Your task to perform on an android device: Open the calendar app, open the side menu, and click the "Day" option Image 0: 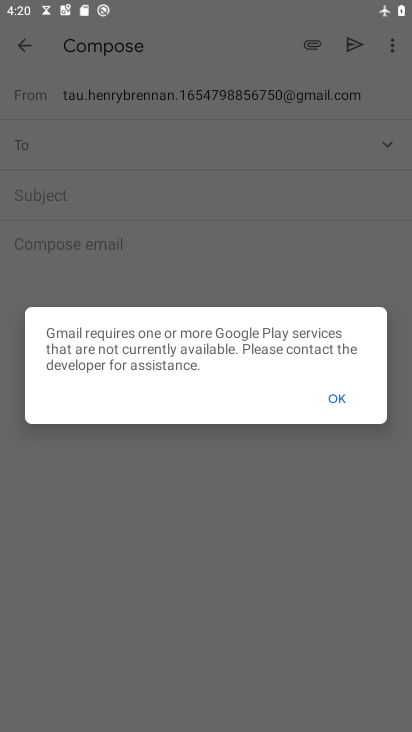
Step 0: click (331, 401)
Your task to perform on an android device: Open the calendar app, open the side menu, and click the "Day" option Image 1: 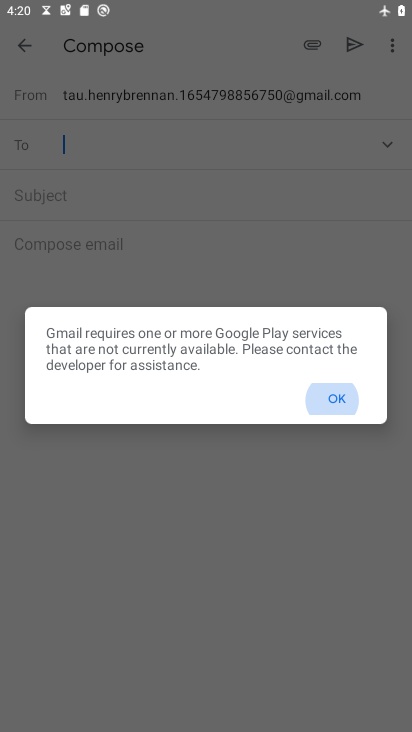
Step 1: click (332, 401)
Your task to perform on an android device: Open the calendar app, open the side menu, and click the "Day" option Image 2: 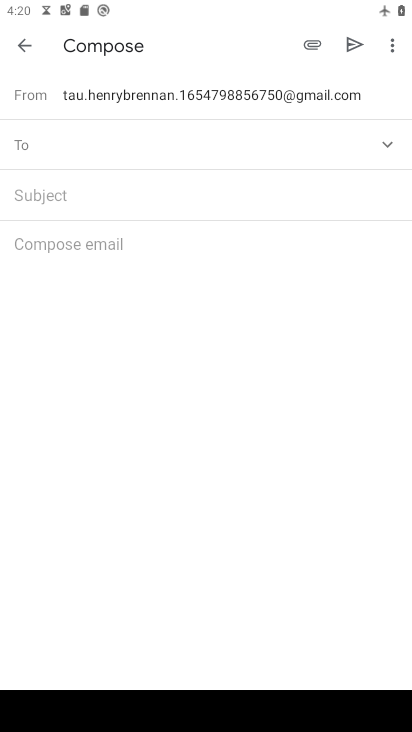
Step 2: click (25, 40)
Your task to perform on an android device: Open the calendar app, open the side menu, and click the "Day" option Image 3: 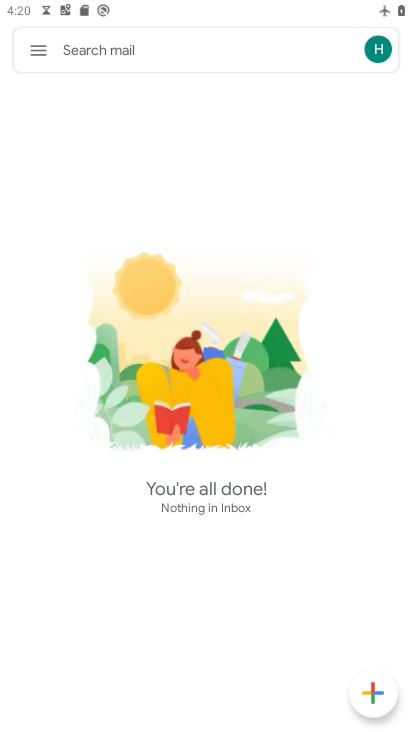
Step 3: press back button
Your task to perform on an android device: Open the calendar app, open the side menu, and click the "Day" option Image 4: 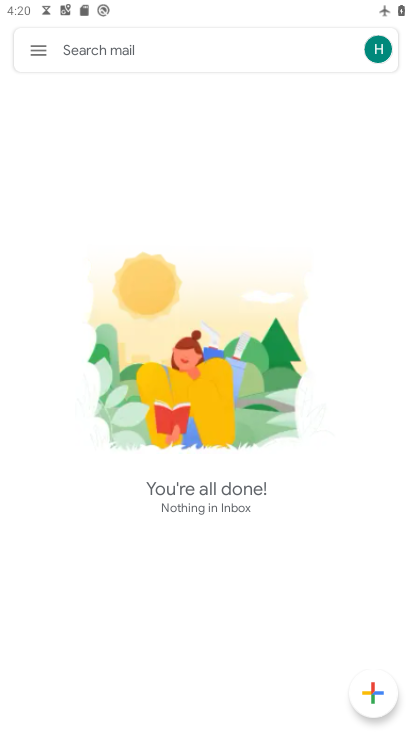
Step 4: press back button
Your task to perform on an android device: Open the calendar app, open the side menu, and click the "Day" option Image 5: 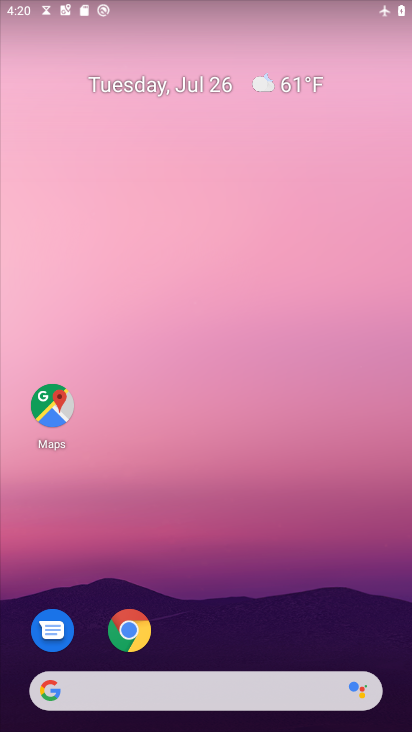
Step 5: drag from (254, 579) to (243, 133)
Your task to perform on an android device: Open the calendar app, open the side menu, and click the "Day" option Image 6: 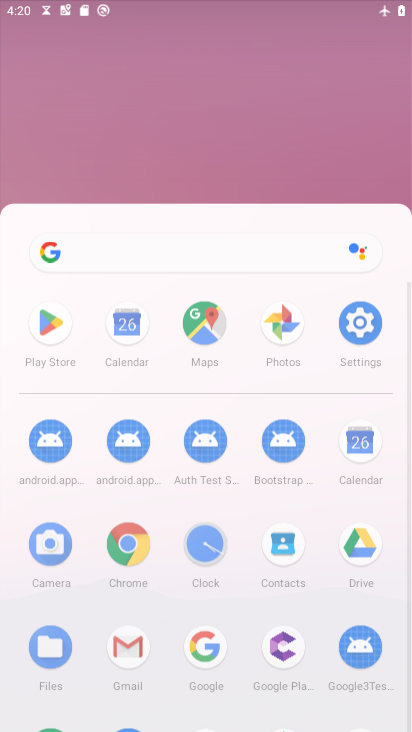
Step 6: drag from (252, 490) to (252, 114)
Your task to perform on an android device: Open the calendar app, open the side menu, and click the "Day" option Image 7: 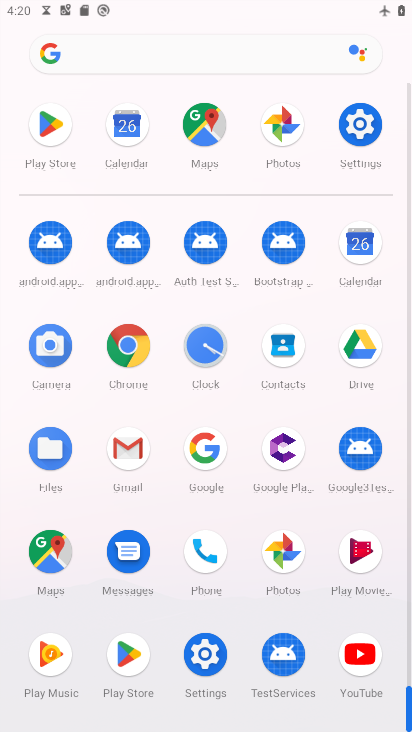
Step 7: click (199, 356)
Your task to perform on an android device: Open the calendar app, open the side menu, and click the "Day" option Image 8: 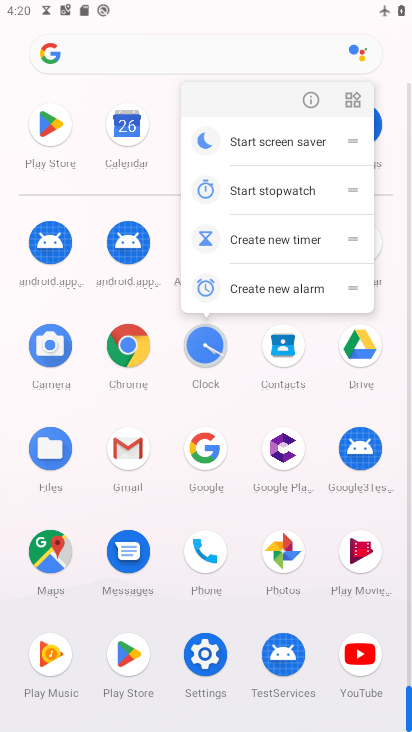
Step 8: click (402, 294)
Your task to perform on an android device: Open the calendar app, open the side menu, and click the "Day" option Image 9: 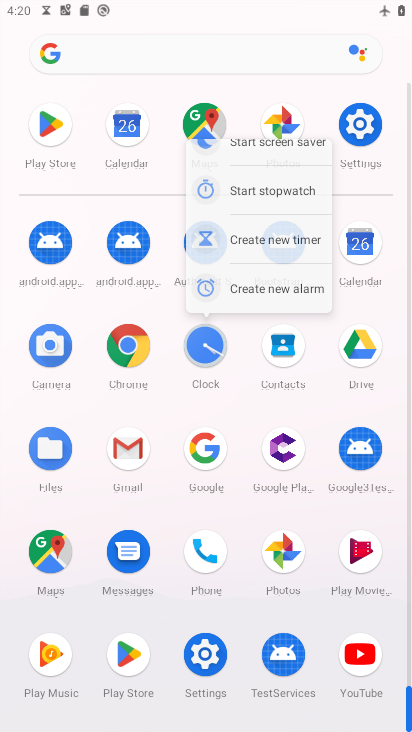
Step 9: click (398, 291)
Your task to perform on an android device: Open the calendar app, open the side menu, and click the "Day" option Image 10: 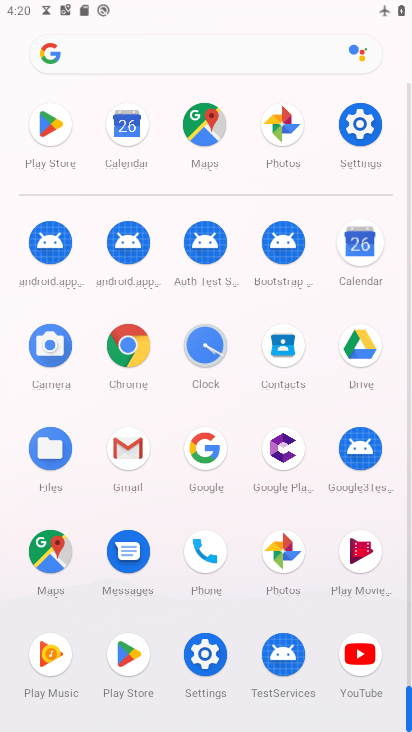
Step 10: click (391, 258)
Your task to perform on an android device: Open the calendar app, open the side menu, and click the "Day" option Image 11: 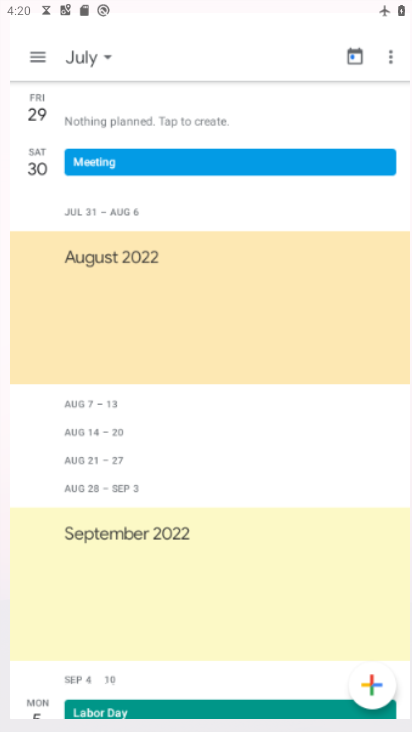
Step 11: click (362, 246)
Your task to perform on an android device: Open the calendar app, open the side menu, and click the "Day" option Image 12: 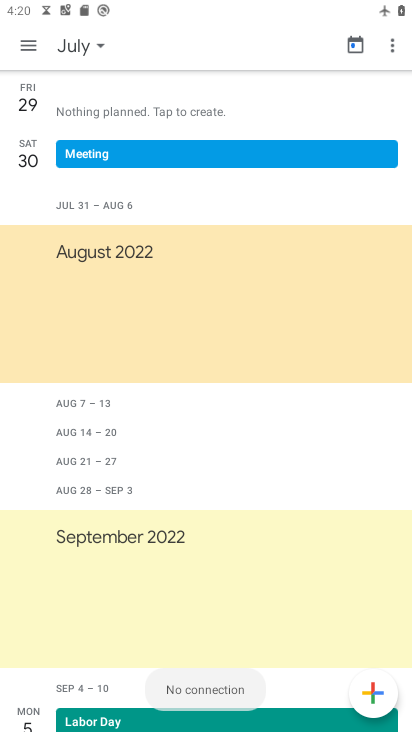
Step 12: click (368, 251)
Your task to perform on an android device: Open the calendar app, open the side menu, and click the "Day" option Image 13: 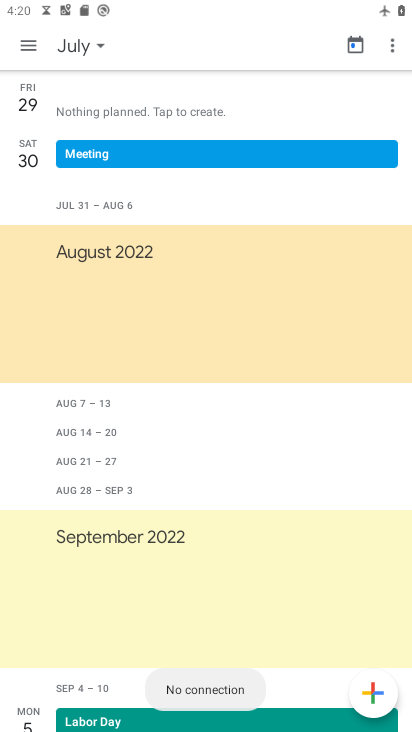
Step 13: click (342, 285)
Your task to perform on an android device: Open the calendar app, open the side menu, and click the "Day" option Image 14: 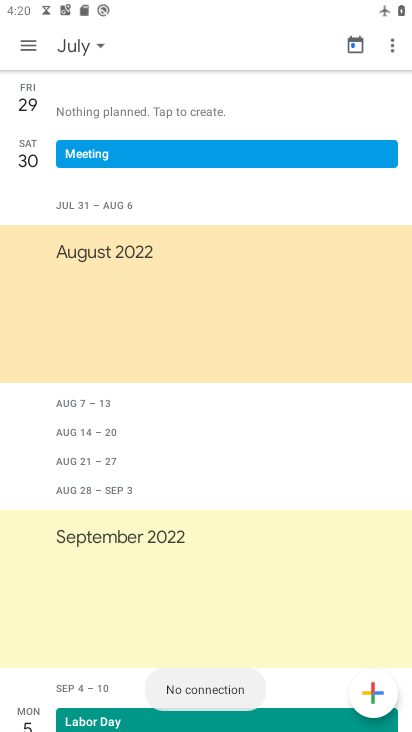
Step 14: click (40, 48)
Your task to perform on an android device: Open the calendar app, open the side menu, and click the "Day" option Image 15: 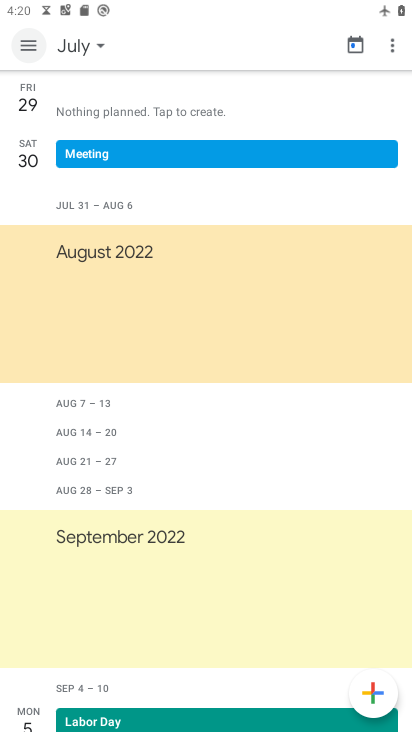
Step 15: click (33, 43)
Your task to perform on an android device: Open the calendar app, open the side menu, and click the "Day" option Image 16: 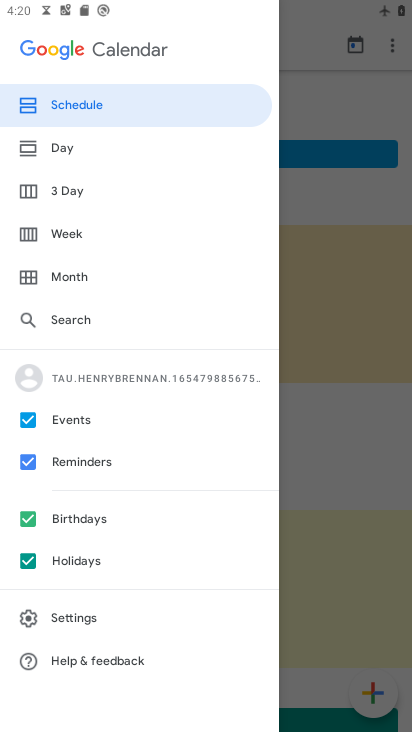
Step 16: click (32, 43)
Your task to perform on an android device: Open the calendar app, open the side menu, and click the "Day" option Image 17: 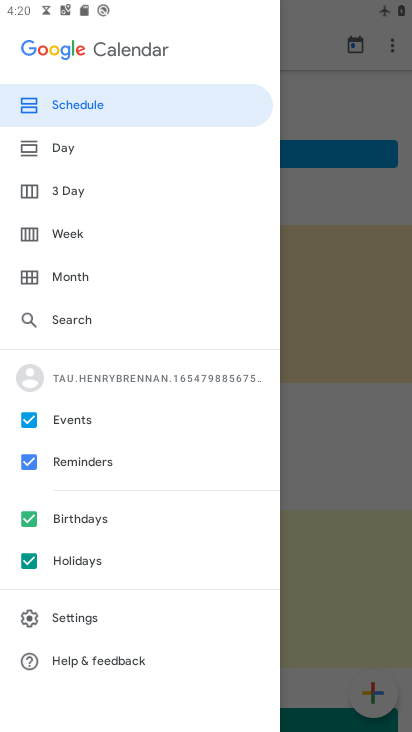
Step 17: click (77, 152)
Your task to perform on an android device: Open the calendar app, open the side menu, and click the "Day" option Image 18: 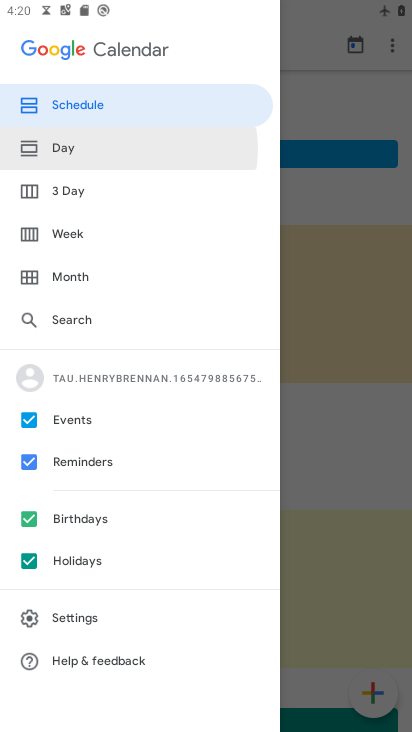
Step 18: click (75, 151)
Your task to perform on an android device: Open the calendar app, open the side menu, and click the "Day" option Image 19: 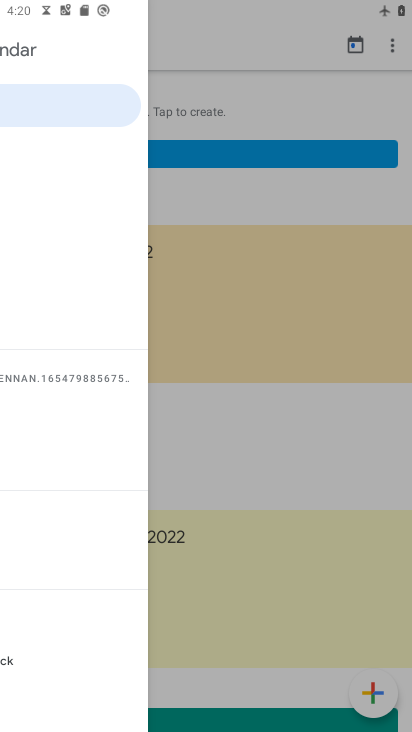
Step 19: click (74, 150)
Your task to perform on an android device: Open the calendar app, open the side menu, and click the "Day" option Image 20: 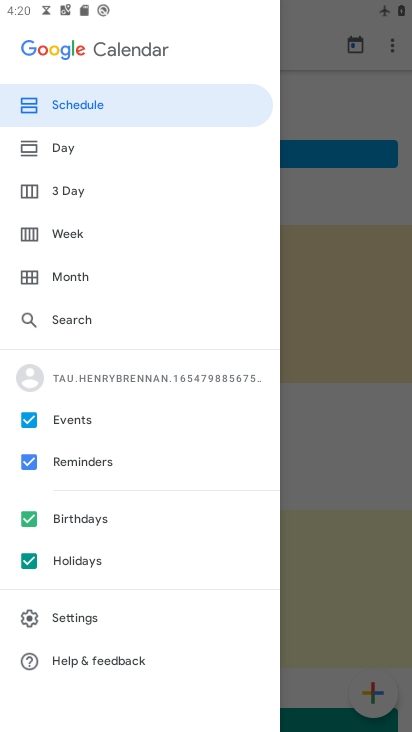
Step 20: task complete